Your task to perform on an android device: change the clock display to show seconds Image 0: 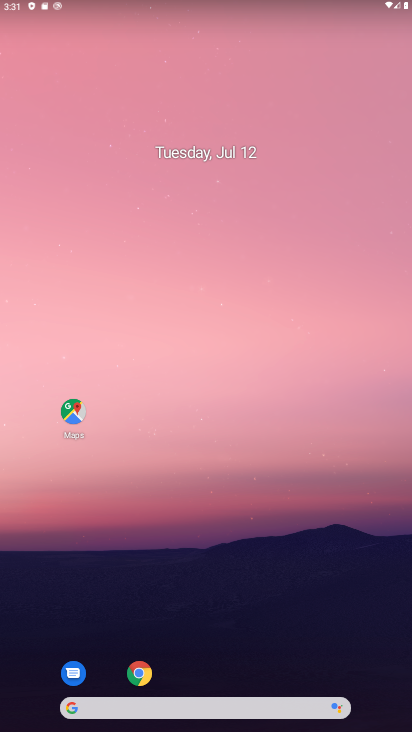
Step 0: drag from (193, 704) to (222, 86)
Your task to perform on an android device: change the clock display to show seconds Image 1: 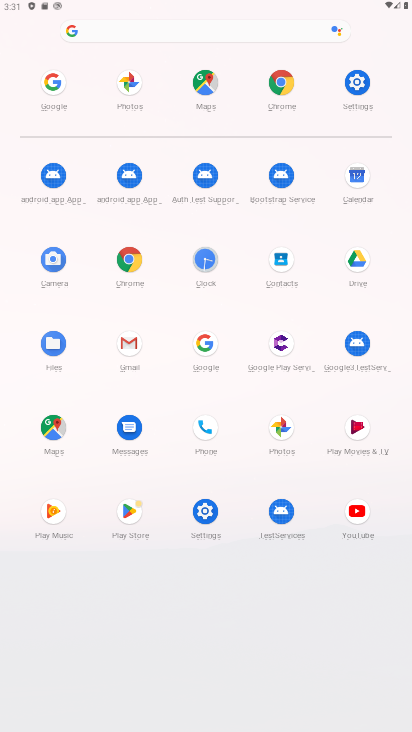
Step 1: click (205, 261)
Your task to perform on an android device: change the clock display to show seconds Image 2: 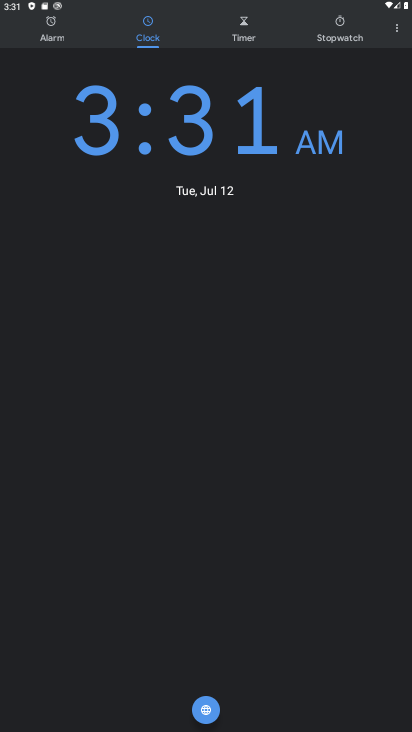
Step 2: click (398, 29)
Your task to perform on an android device: change the clock display to show seconds Image 3: 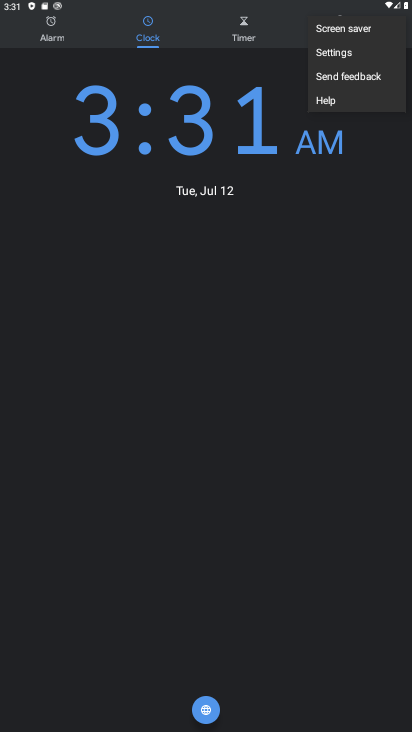
Step 3: click (344, 53)
Your task to perform on an android device: change the clock display to show seconds Image 4: 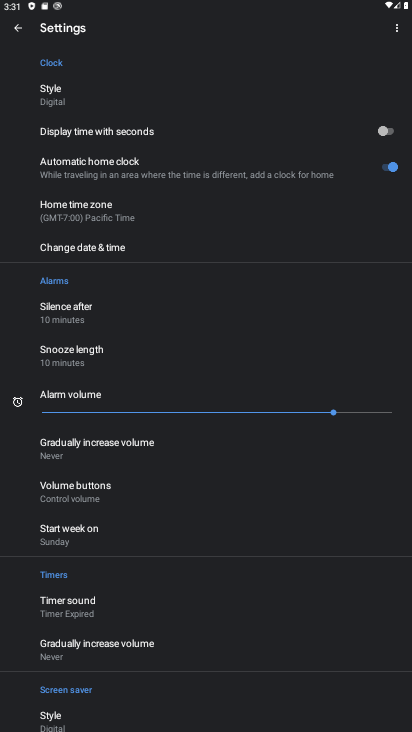
Step 4: click (387, 134)
Your task to perform on an android device: change the clock display to show seconds Image 5: 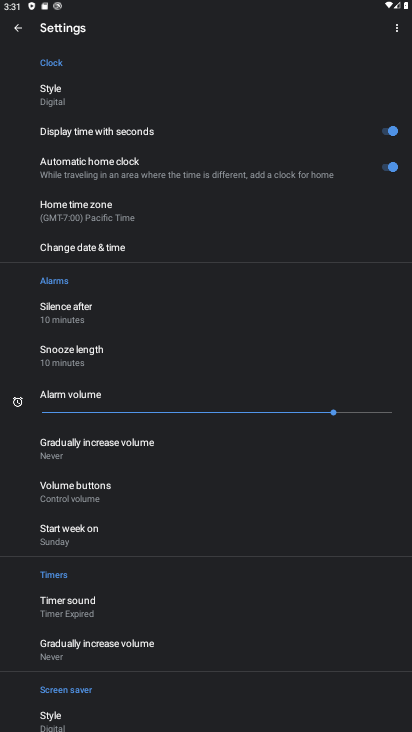
Step 5: task complete